Your task to perform on an android device: Look up the best rated Nike shoes on Nike.com Image 0: 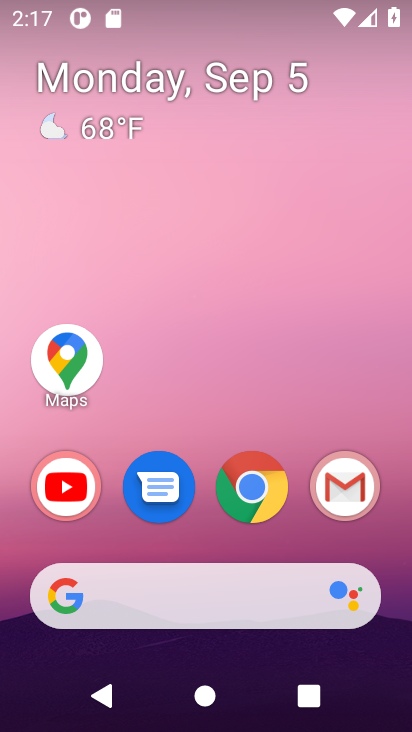
Step 0: click (241, 495)
Your task to perform on an android device: Look up the best rated Nike shoes on Nike.com Image 1: 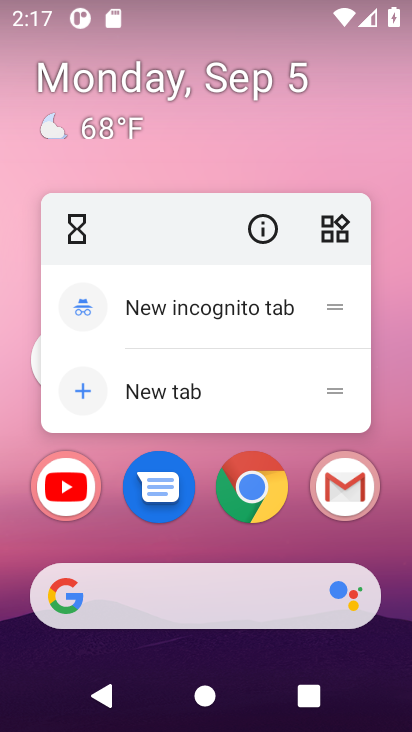
Step 1: click (258, 499)
Your task to perform on an android device: Look up the best rated Nike shoes on Nike.com Image 2: 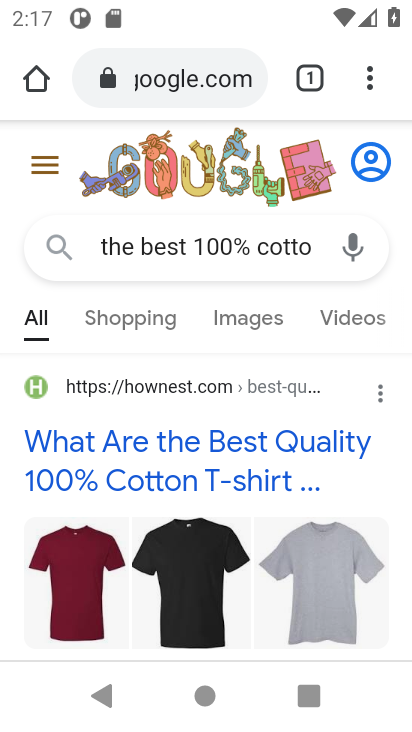
Step 2: click (177, 55)
Your task to perform on an android device: Look up the best rated Nike shoes on Nike.com Image 3: 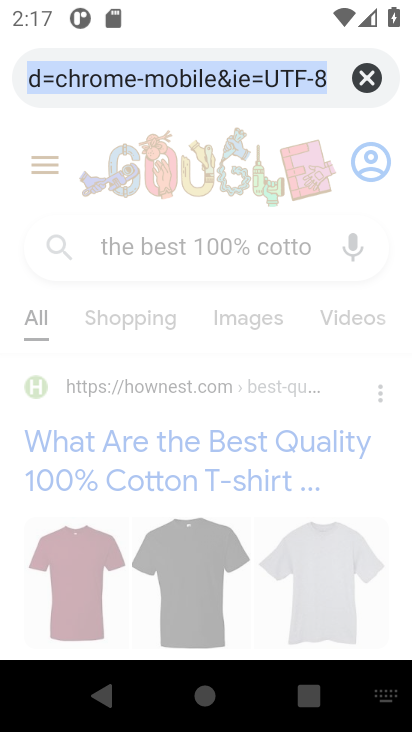
Step 3: click (362, 75)
Your task to perform on an android device: Look up the best rated Nike shoes on Nike.com Image 4: 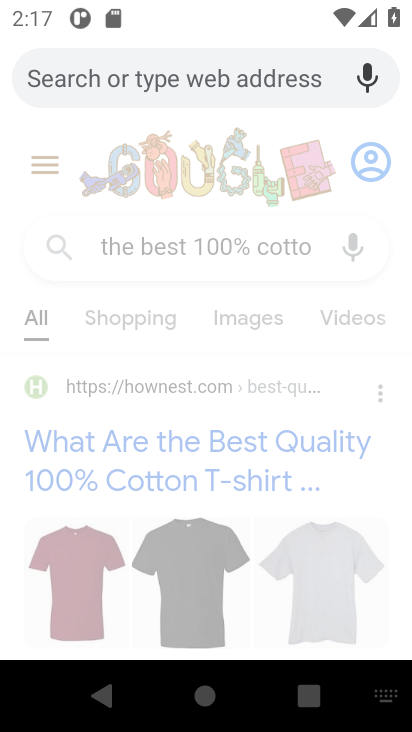
Step 4: type "the best rated Nike shoes on Nike.com"
Your task to perform on an android device: Look up the best rated Nike shoes on Nike.com Image 5: 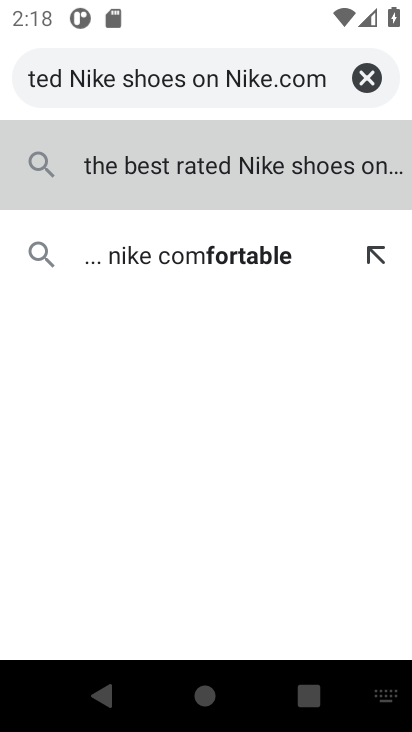
Step 5: click (316, 157)
Your task to perform on an android device: Look up the best rated Nike shoes on Nike.com Image 6: 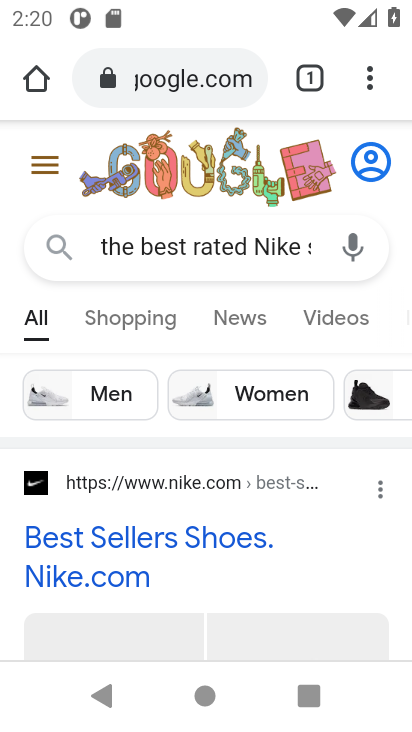
Step 6: task complete